Your task to perform on an android device: Show me recent news Image 0: 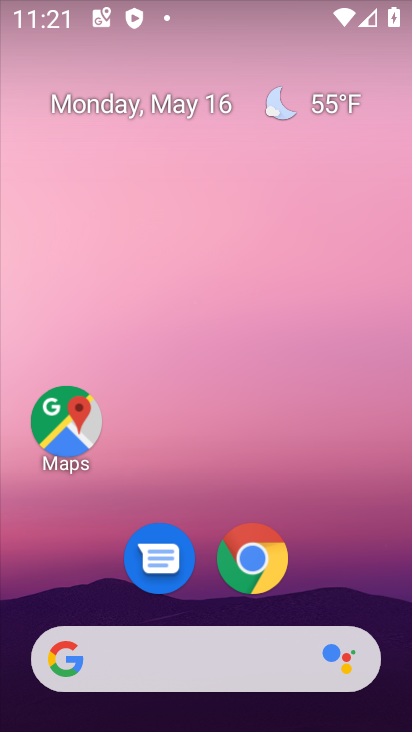
Step 0: drag from (328, 552) to (343, 107)
Your task to perform on an android device: Show me recent news Image 1: 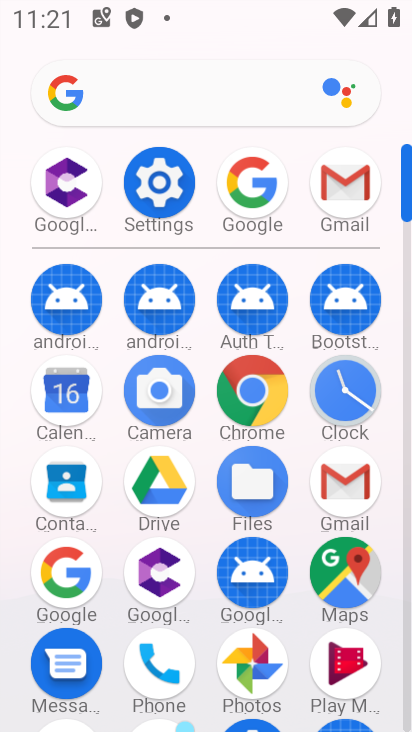
Step 1: click (64, 572)
Your task to perform on an android device: Show me recent news Image 2: 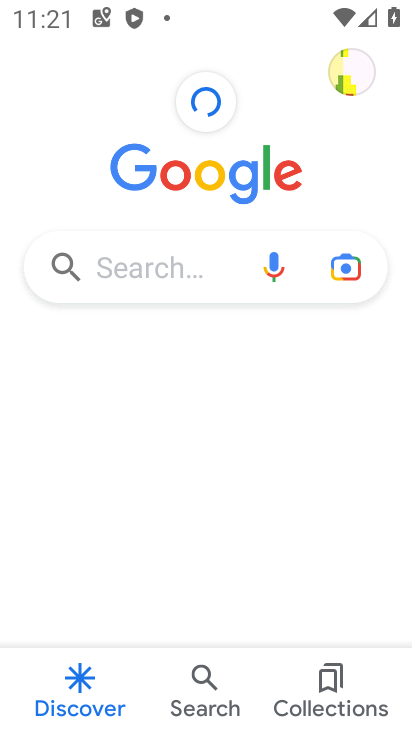
Step 2: click (155, 266)
Your task to perform on an android device: Show me recent news Image 3: 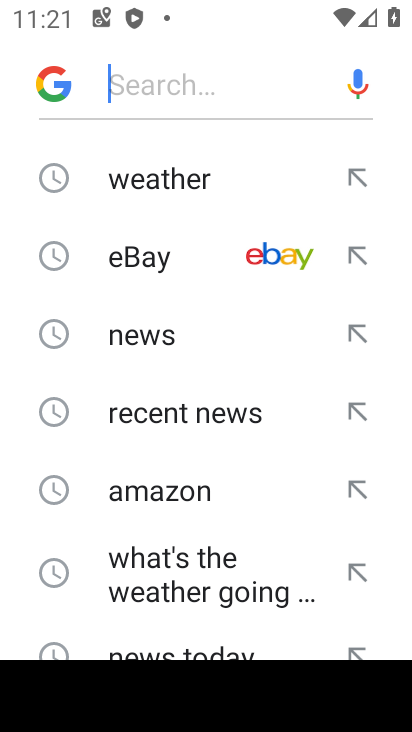
Step 3: click (202, 417)
Your task to perform on an android device: Show me recent news Image 4: 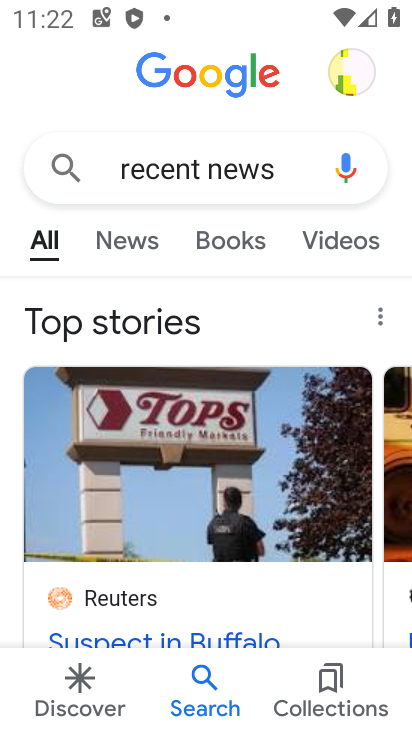
Step 4: task complete